Your task to perform on an android device: Open settings on Google Maps Image 0: 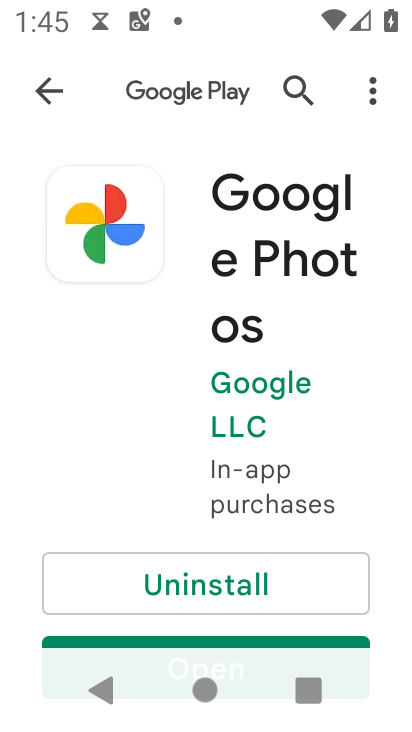
Step 0: press home button
Your task to perform on an android device: Open settings on Google Maps Image 1: 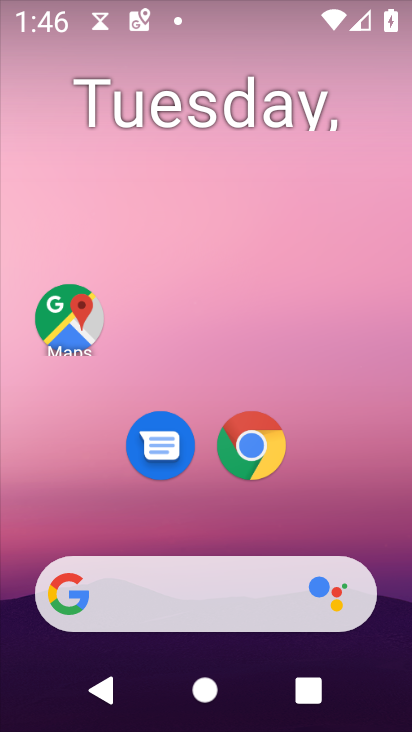
Step 1: drag from (347, 607) to (292, 76)
Your task to perform on an android device: Open settings on Google Maps Image 2: 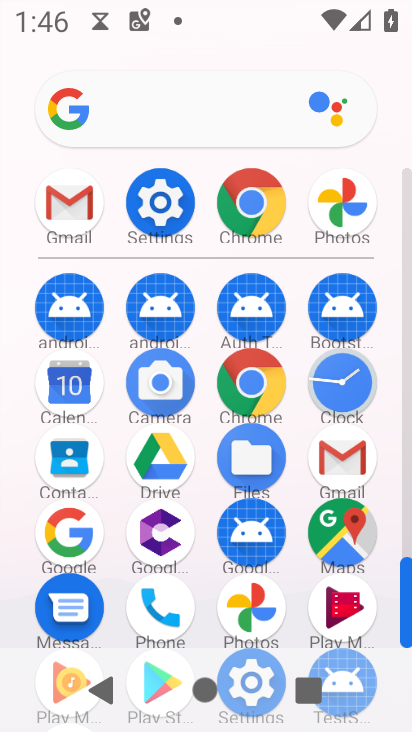
Step 2: click (338, 526)
Your task to perform on an android device: Open settings on Google Maps Image 3: 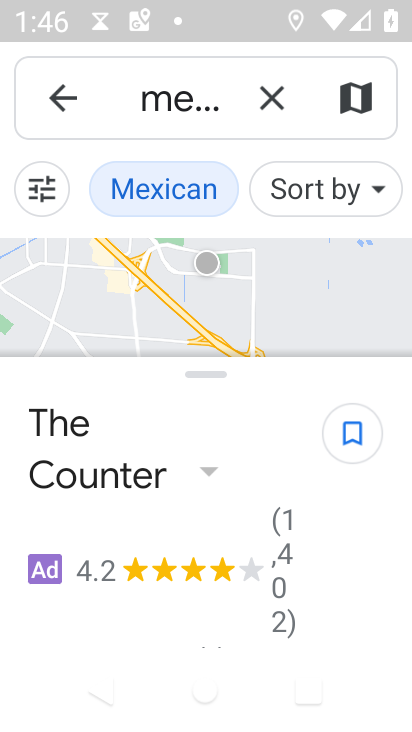
Step 3: press back button
Your task to perform on an android device: Open settings on Google Maps Image 4: 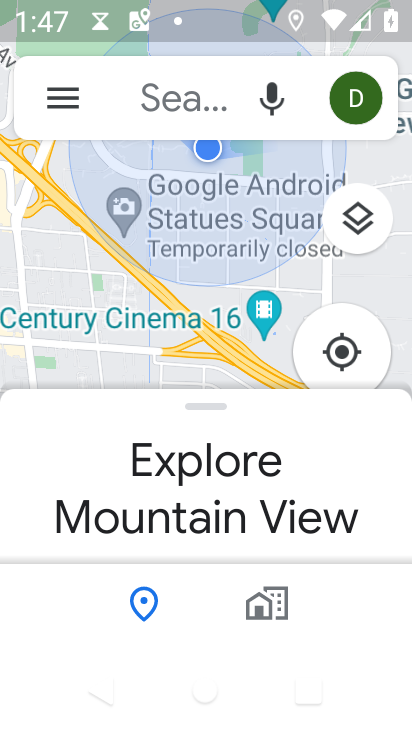
Step 4: click (69, 93)
Your task to perform on an android device: Open settings on Google Maps Image 5: 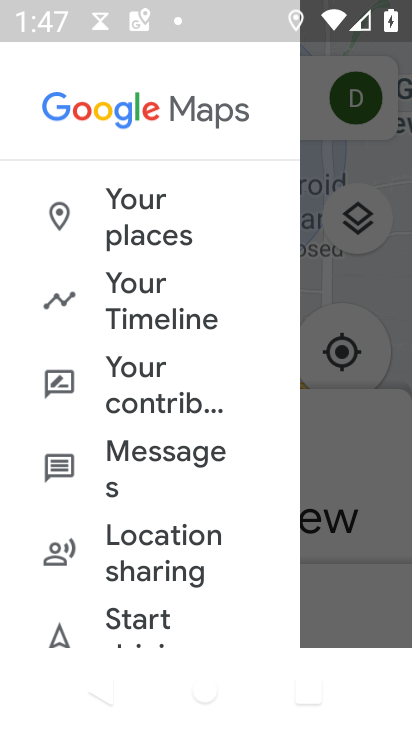
Step 5: drag from (156, 606) to (189, 113)
Your task to perform on an android device: Open settings on Google Maps Image 6: 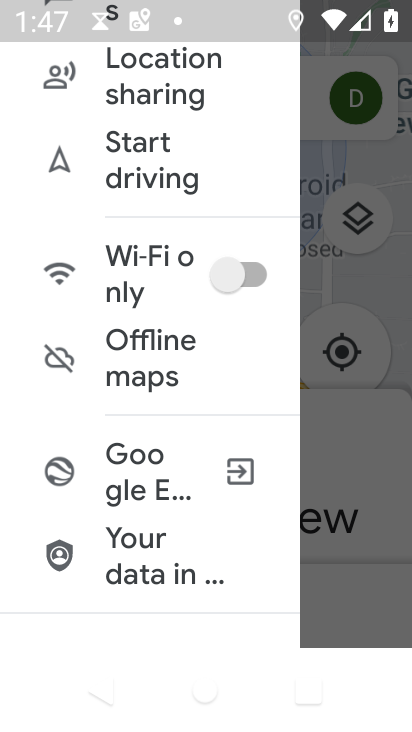
Step 6: drag from (177, 570) to (183, 206)
Your task to perform on an android device: Open settings on Google Maps Image 7: 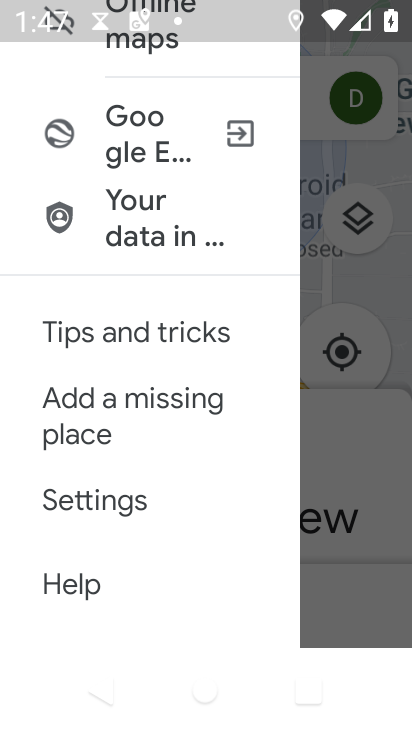
Step 7: click (145, 498)
Your task to perform on an android device: Open settings on Google Maps Image 8: 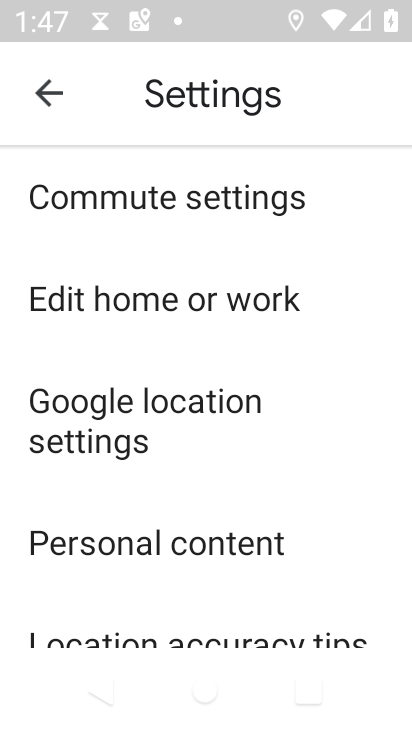
Step 8: task complete